Your task to perform on an android device: Turn off the flashlight Image 0: 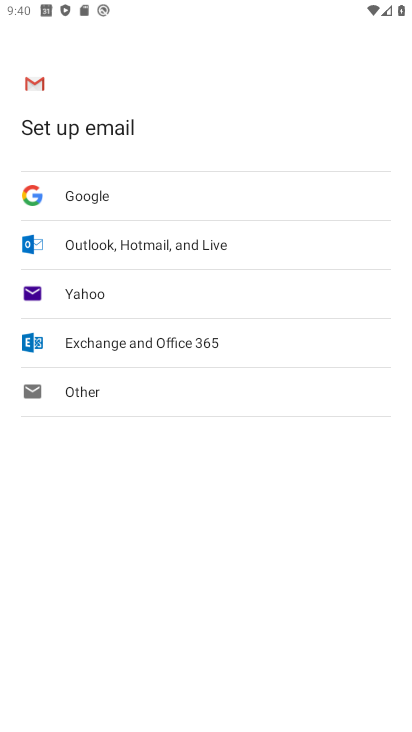
Step 0: task impossible